Your task to perform on an android device: Check the news Image 0: 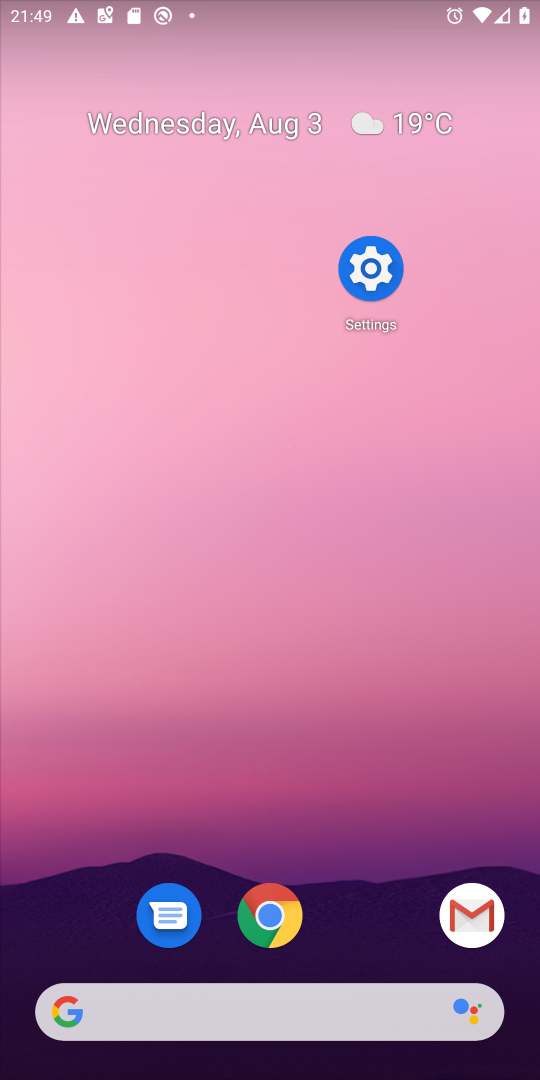
Step 0: drag from (341, 1028) to (302, 482)
Your task to perform on an android device: Check the news Image 1: 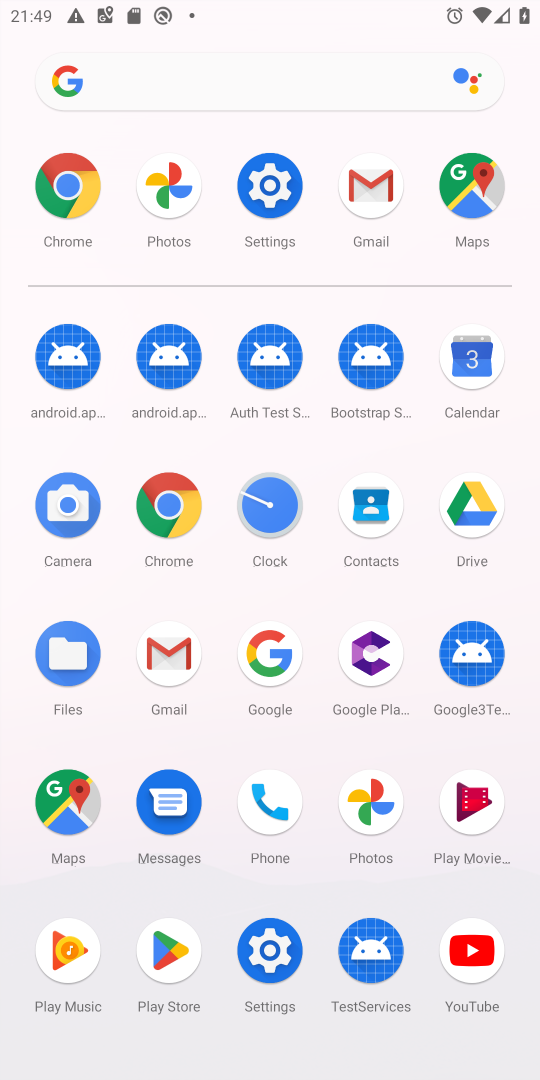
Step 1: click (166, 93)
Your task to perform on an android device: Check the news Image 2: 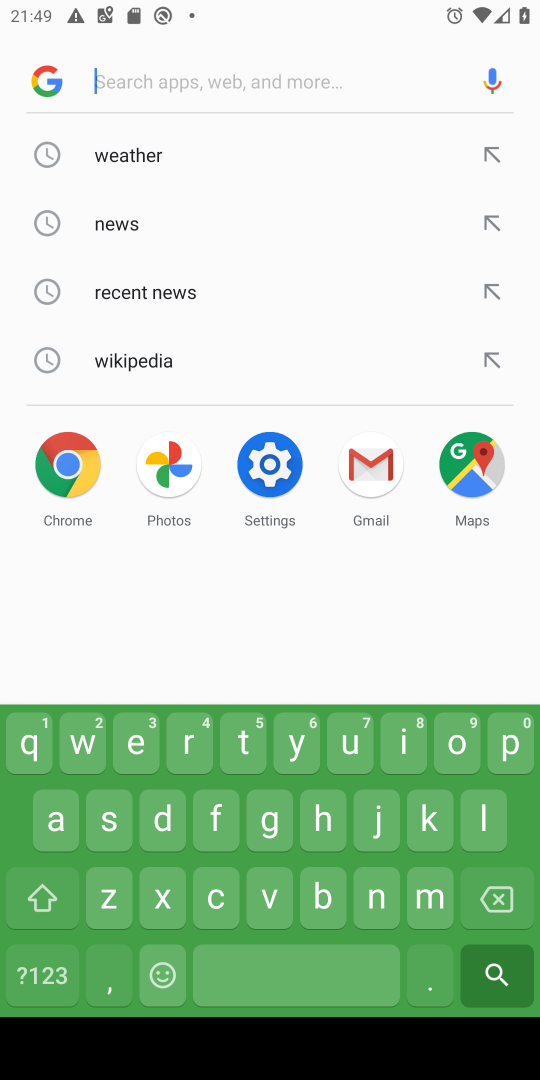
Step 2: click (129, 232)
Your task to perform on an android device: Check the news Image 3: 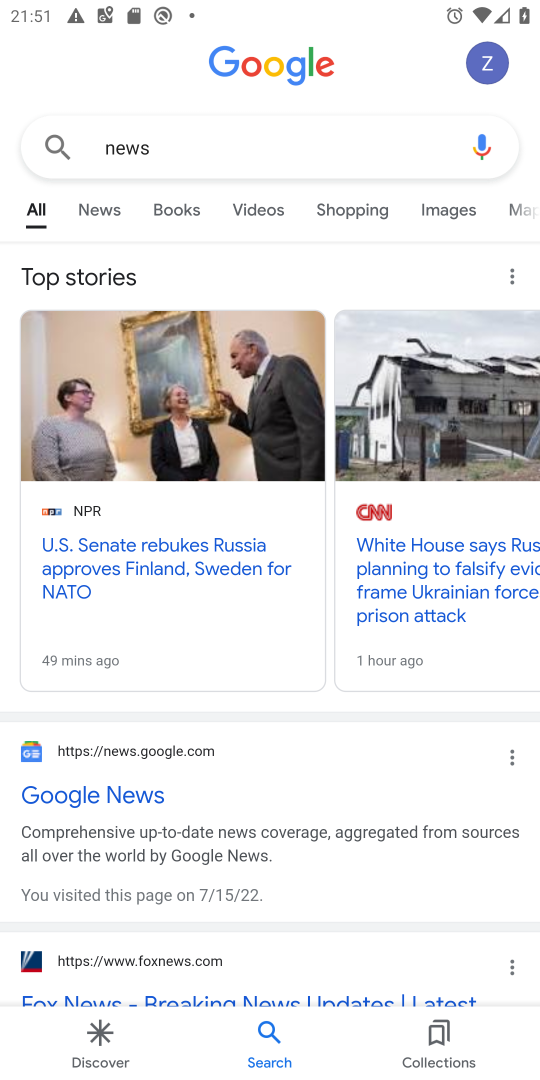
Step 3: task complete